Your task to perform on an android device: Go to calendar. Show me events next week Image 0: 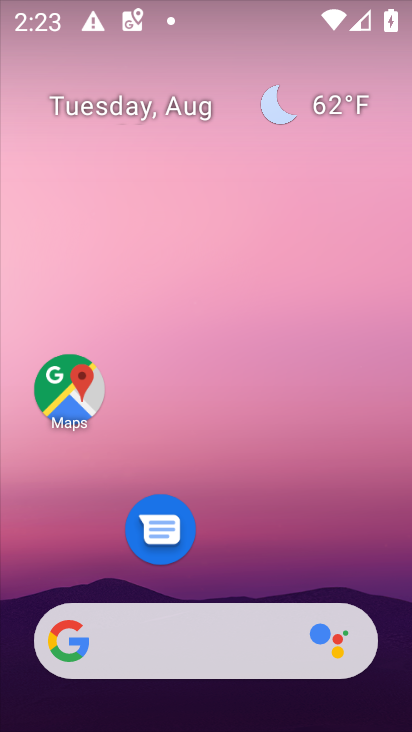
Step 0: drag from (180, 592) to (331, 142)
Your task to perform on an android device: Go to calendar. Show me events next week Image 1: 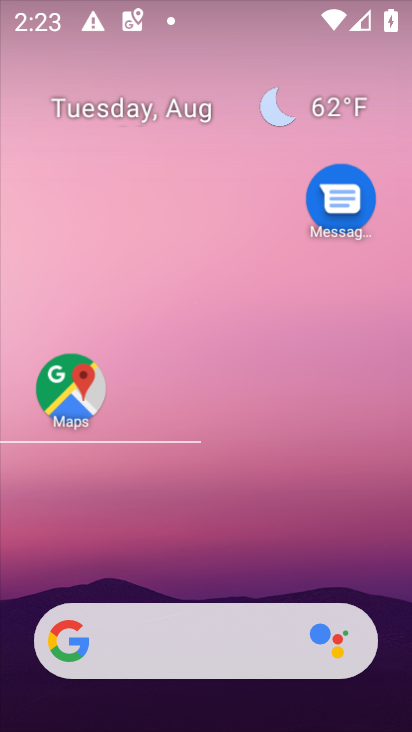
Step 1: click (331, 142)
Your task to perform on an android device: Go to calendar. Show me events next week Image 2: 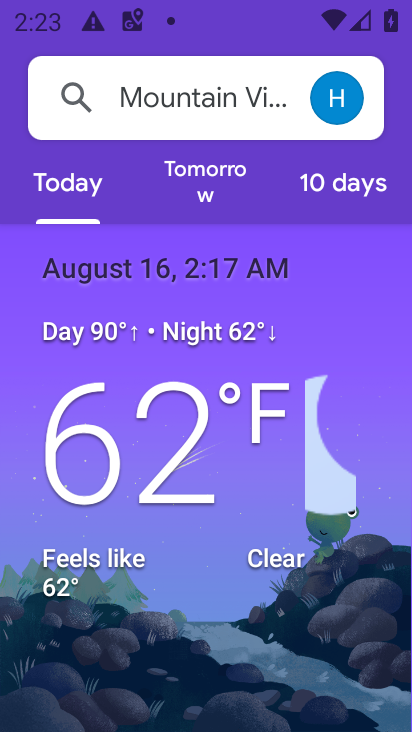
Step 2: task complete